Your task to perform on an android device: change the upload size in google photos Image 0: 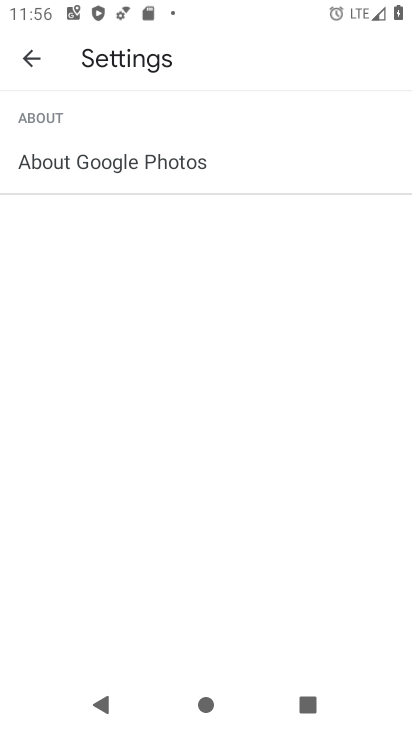
Step 0: click (26, 55)
Your task to perform on an android device: change the upload size in google photos Image 1: 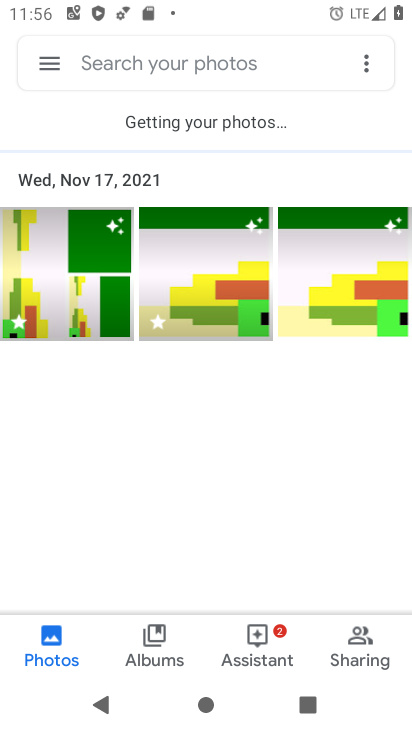
Step 1: click (50, 68)
Your task to perform on an android device: change the upload size in google photos Image 2: 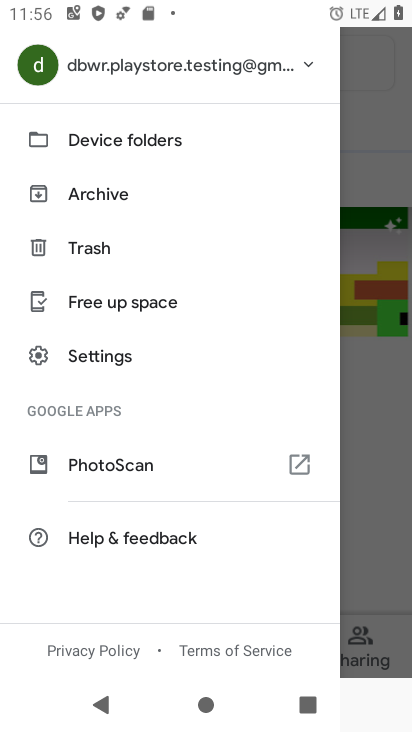
Step 2: click (103, 363)
Your task to perform on an android device: change the upload size in google photos Image 3: 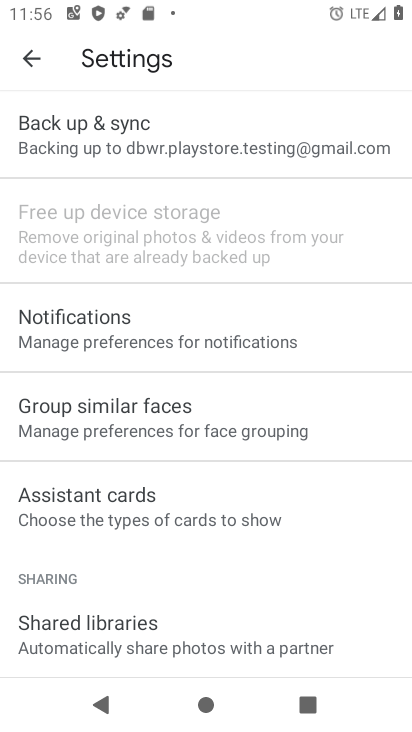
Step 3: click (139, 144)
Your task to perform on an android device: change the upload size in google photos Image 4: 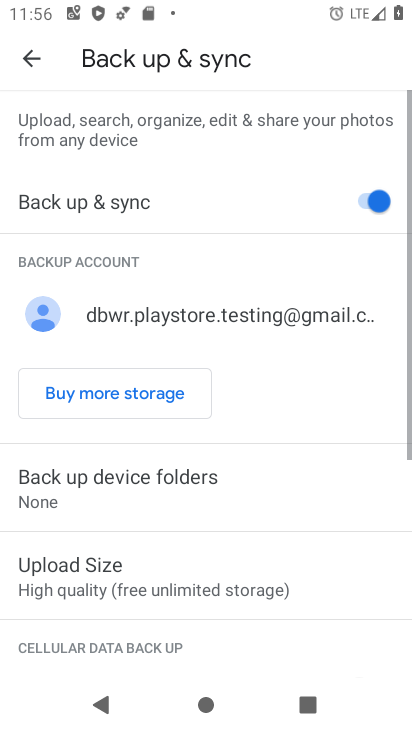
Step 4: drag from (146, 496) to (151, 295)
Your task to perform on an android device: change the upload size in google photos Image 5: 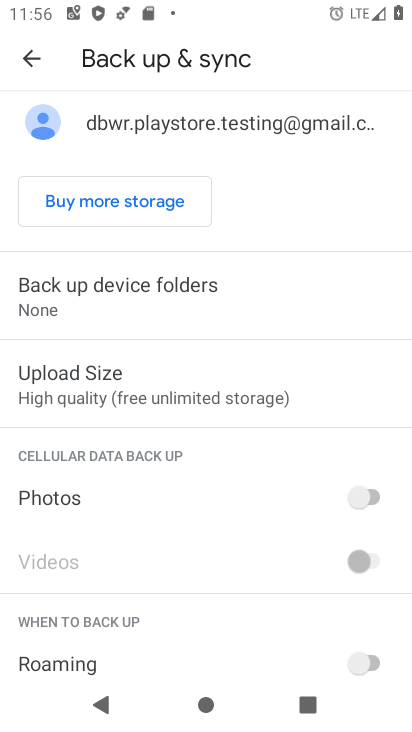
Step 5: click (89, 390)
Your task to perform on an android device: change the upload size in google photos Image 6: 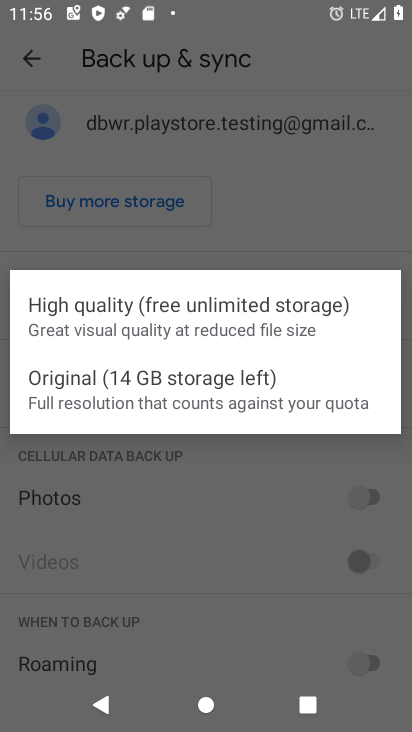
Step 6: click (89, 390)
Your task to perform on an android device: change the upload size in google photos Image 7: 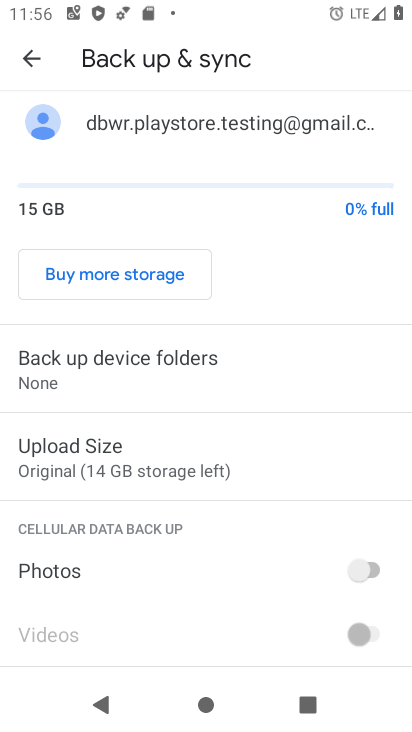
Step 7: task complete